Your task to perform on an android device: Open notification settings Image 0: 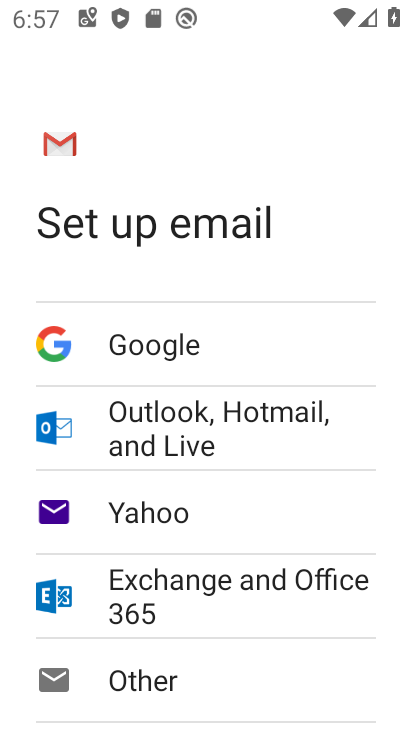
Step 0: press home button
Your task to perform on an android device: Open notification settings Image 1: 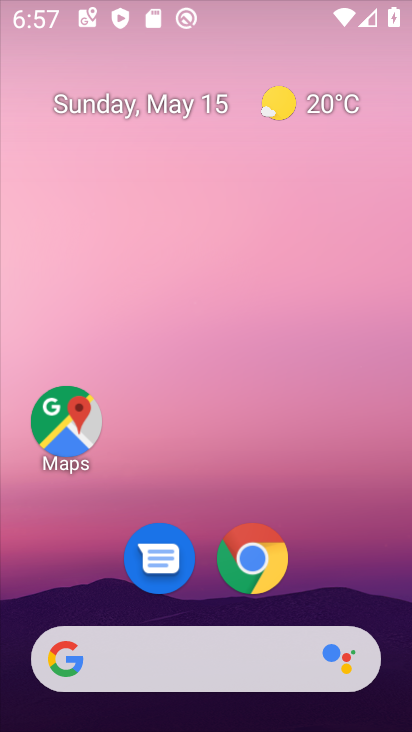
Step 1: press home button
Your task to perform on an android device: Open notification settings Image 2: 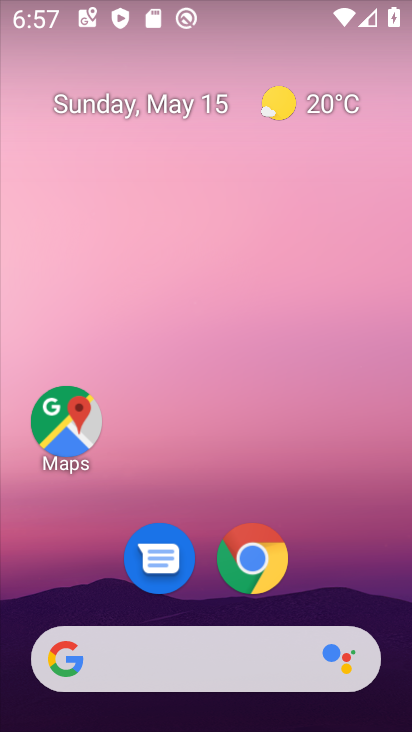
Step 2: drag from (304, 464) to (234, 13)
Your task to perform on an android device: Open notification settings Image 3: 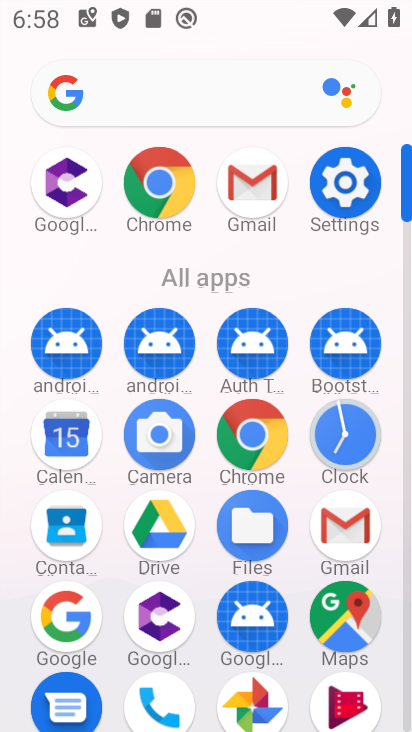
Step 3: click (340, 172)
Your task to perform on an android device: Open notification settings Image 4: 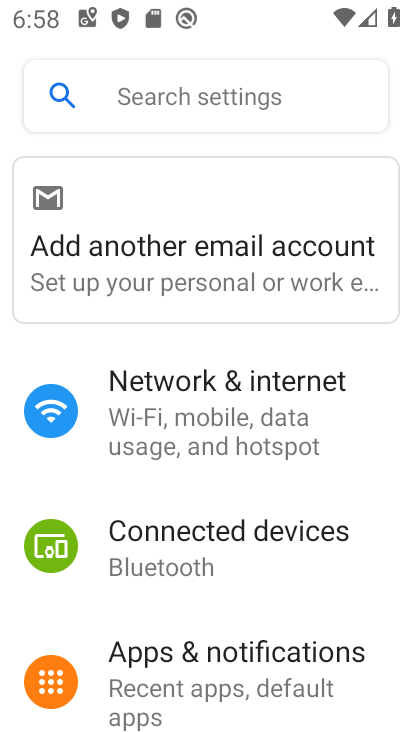
Step 4: click (209, 672)
Your task to perform on an android device: Open notification settings Image 5: 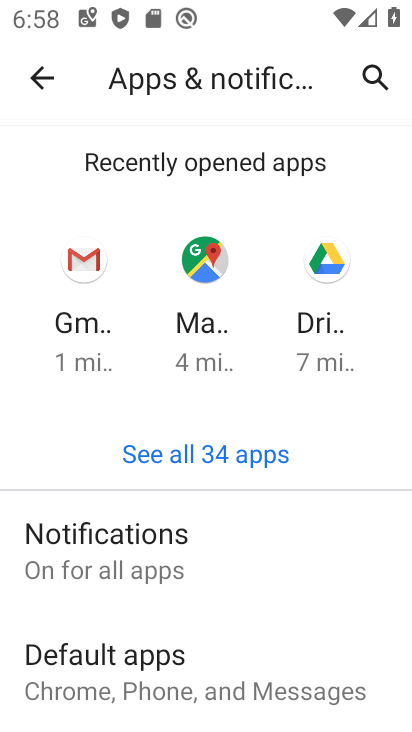
Step 5: task complete